Your task to perform on an android device: Open the phone app and click the voicemail tab. Image 0: 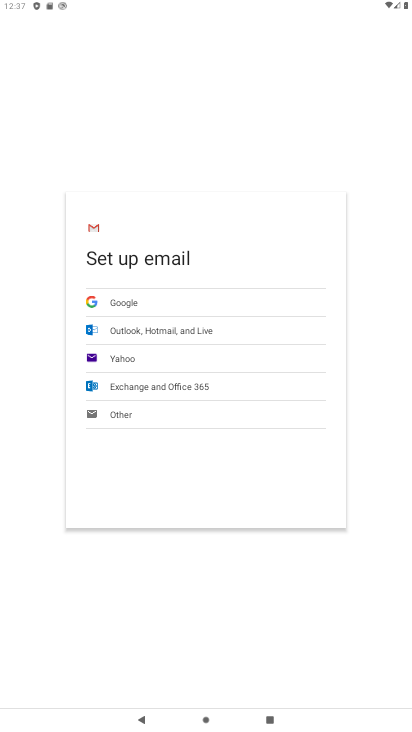
Step 0: press home button
Your task to perform on an android device: Open the phone app and click the voicemail tab. Image 1: 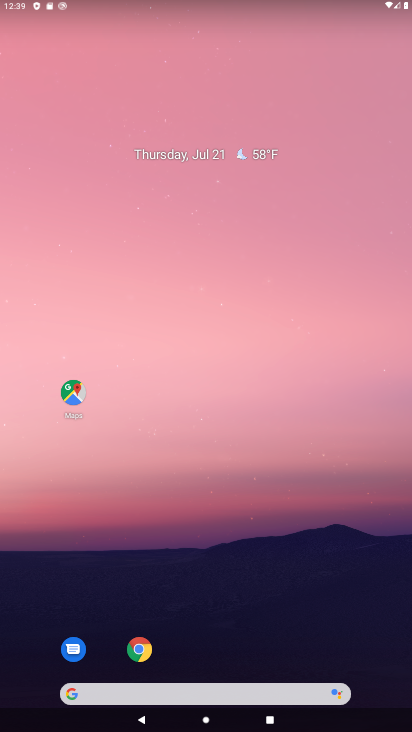
Step 1: drag from (240, 656) to (238, 142)
Your task to perform on an android device: Open the phone app and click the voicemail tab. Image 2: 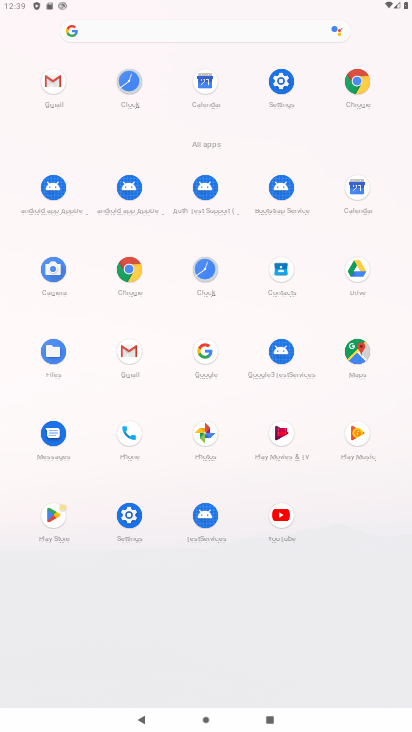
Step 2: click (138, 429)
Your task to perform on an android device: Open the phone app and click the voicemail tab. Image 3: 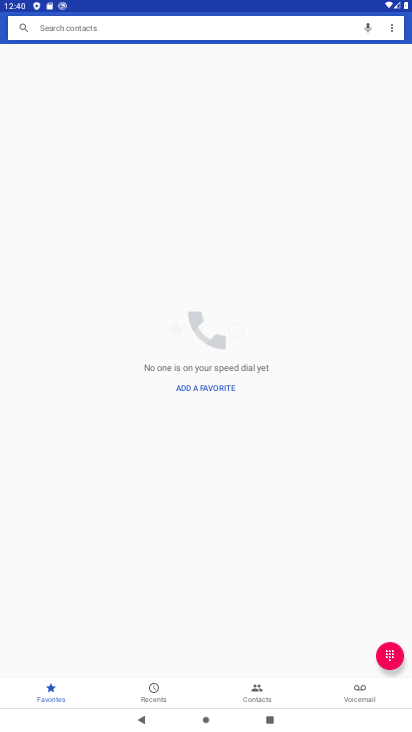
Step 3: click (353, 681)
Your task to perform on an android device: Open the phone app and click the voicemail tab. Image 4: 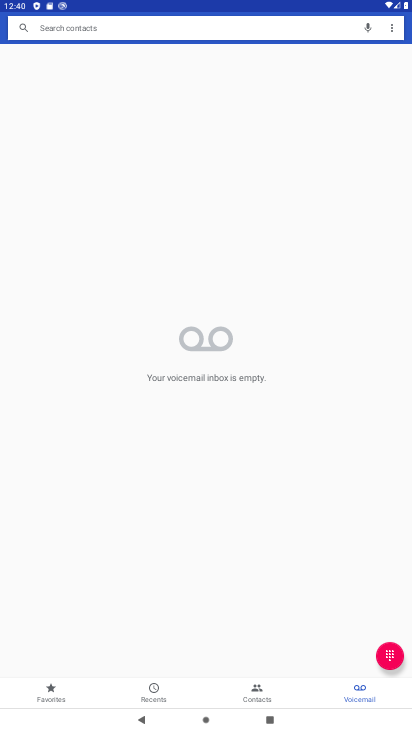
Step 4: task complete